Your task to perform on an android device: all mails in gmail Image 0: 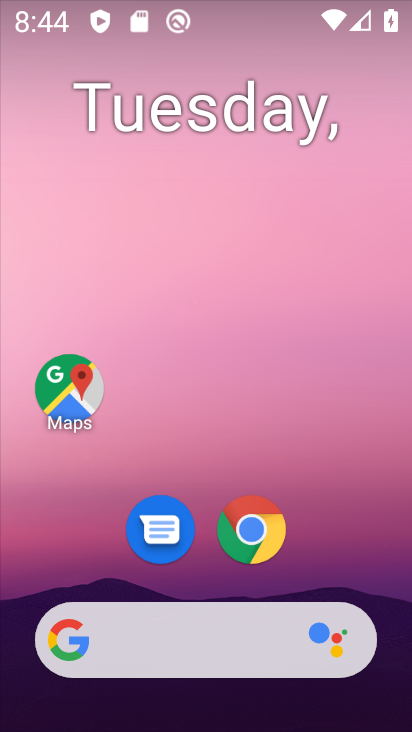
Step 0: drag from (393, 619) to (358, 157)
Your task to perform on an android device: all mails in gmail Image 1: 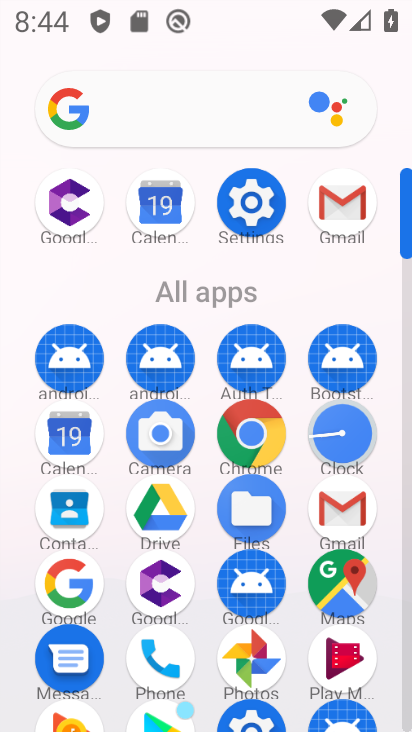
Step 1: click (406, 690)
Your task to perform on an android device: all mails in gmail Image 2: 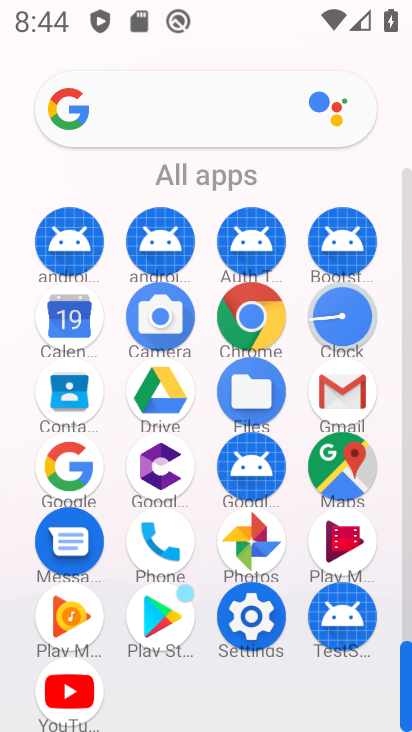
Step 2: click (340, 389)
Your task to perform on an android device: all mails in gmail Image 3: 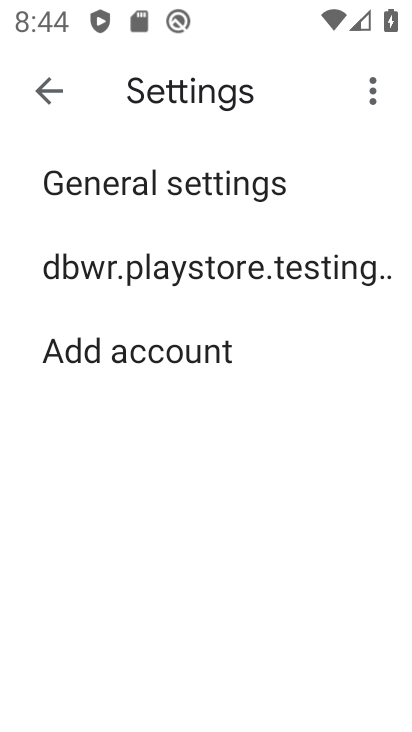
Step 3: click (126, 274)
Your task to perform on an android device: all mails in gmail Image 4: 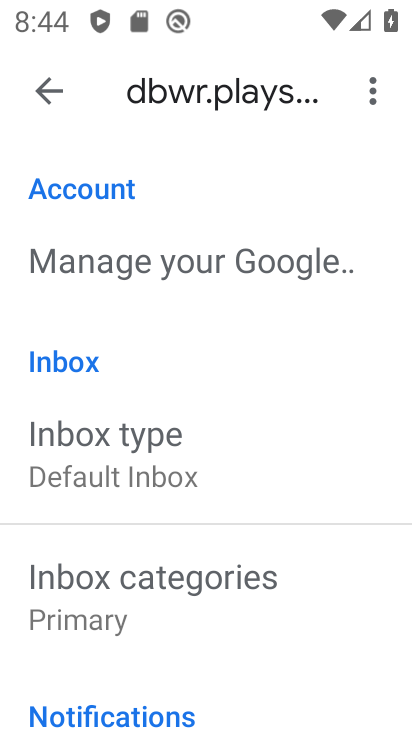
Step 4: press back button
Your task to perform on an android device: all mails in gmail Image 5: 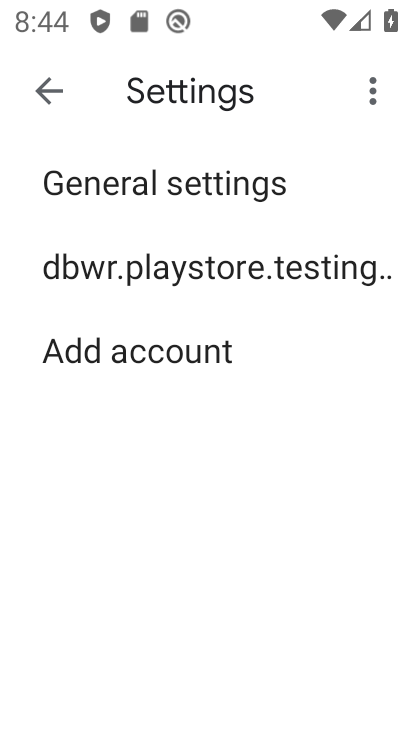
Step 5: press back button
Your task to perform on an android device: all mails in gmail Image 6: 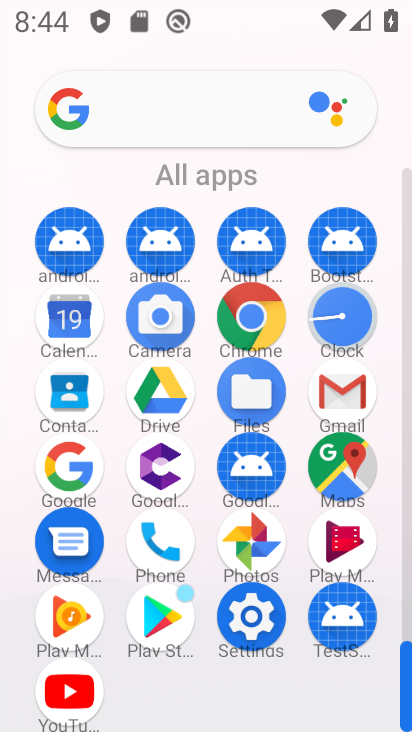
Step 6: click (336, 389)
Your task to perform on an android device: all mails in gmail Image 7: 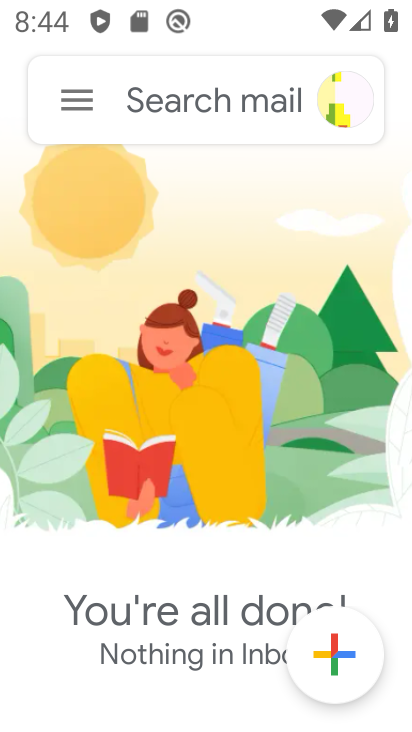
Step 7: click (73, 98)
Your task to perform on an android device: all mails in gmail Image 8: 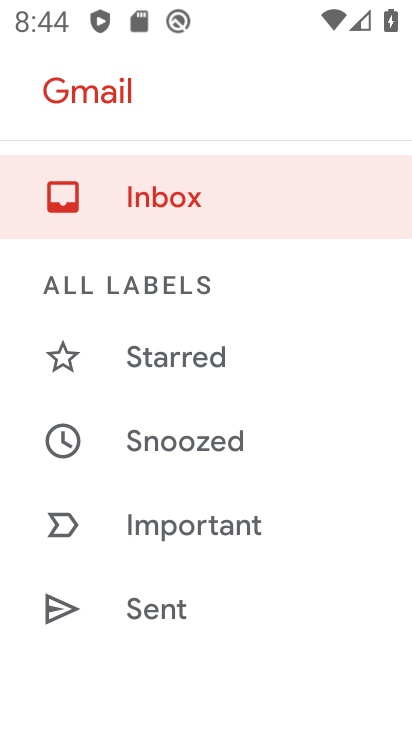
Step 8: drag from (306, 583) to (316, 295)
Your task to perform on an android device: all mails in gmail Image 9: 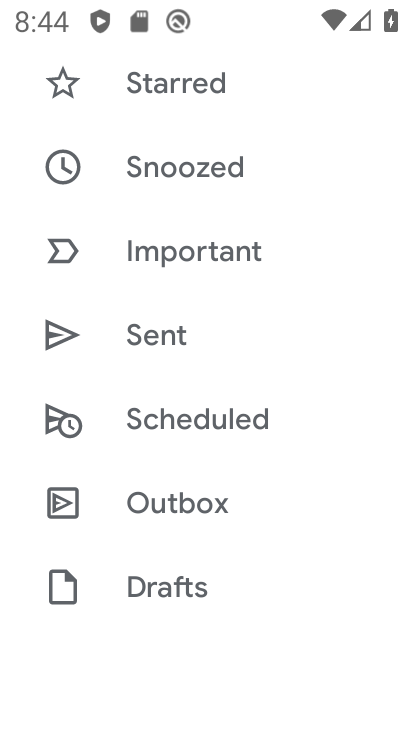
Step 9: drag from (279, 549) to (308, 173)
Your task to perform on an android device: all mails in gmail Image 10: 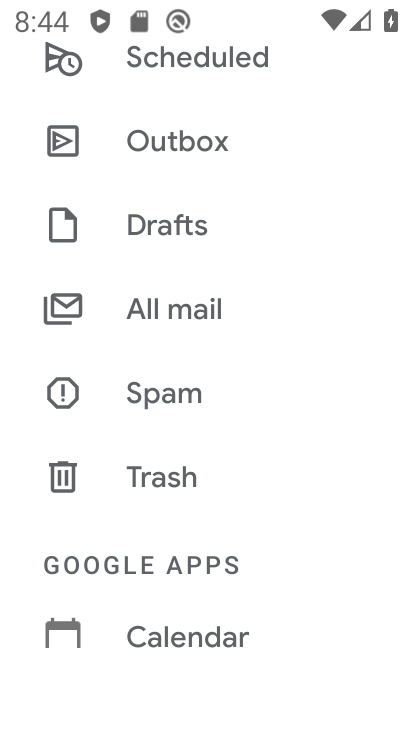
Step 10: click (192, 320)
Your task to perform on an android device: all mails in gmail Image 11: 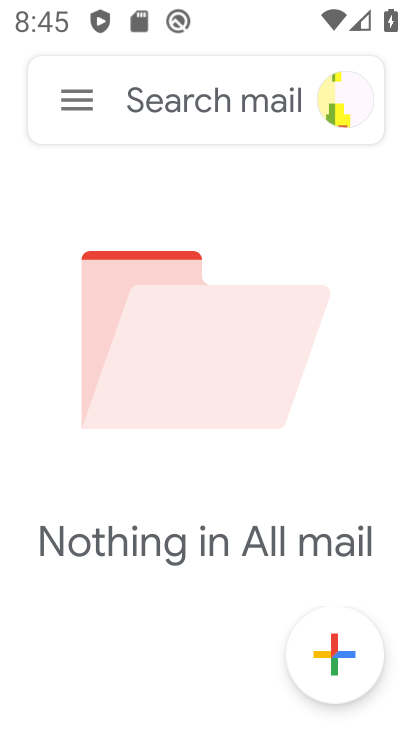
Step 11: task complete